Your task to perform on an android device: open a bookmark in the chrome app Image 0: 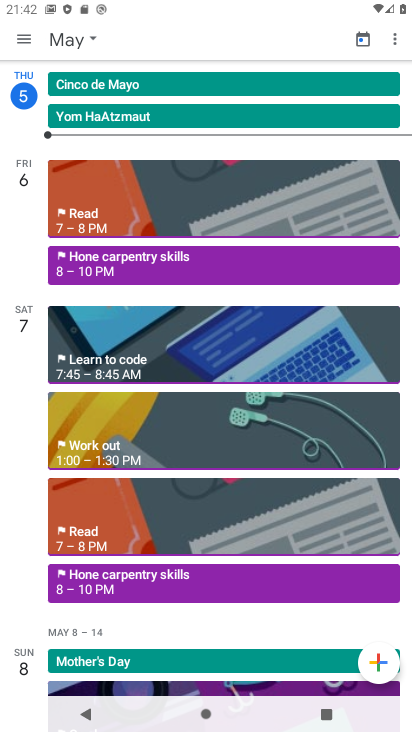
Step 0: press home button
Your task to perform on an android device: open a bookmark in the chrome app Image 1: 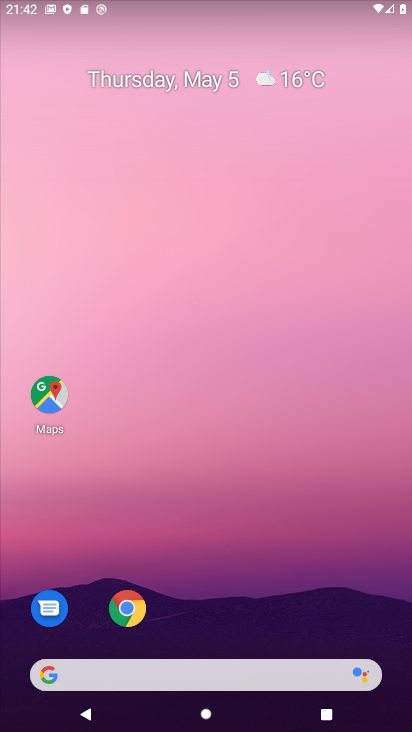
Step 1: drag from (242, 612) to (271, 76)
Your task to perform on an android device: open a bookmark in the chrome app Image 2: 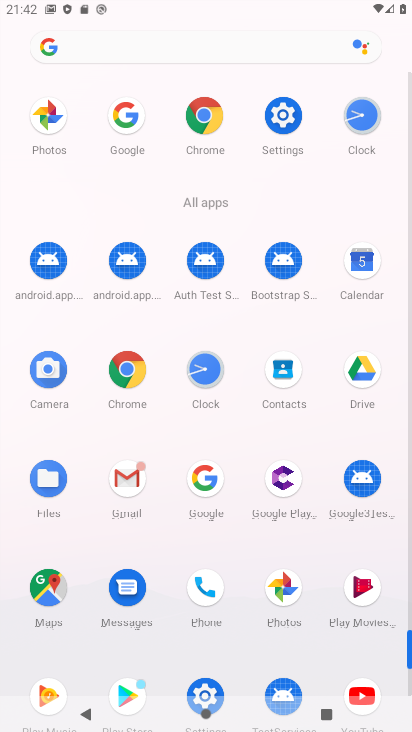
Step 2: click (202, 118)
Your task to perform on an android device: open a bookmark in the chrome app Image 3: 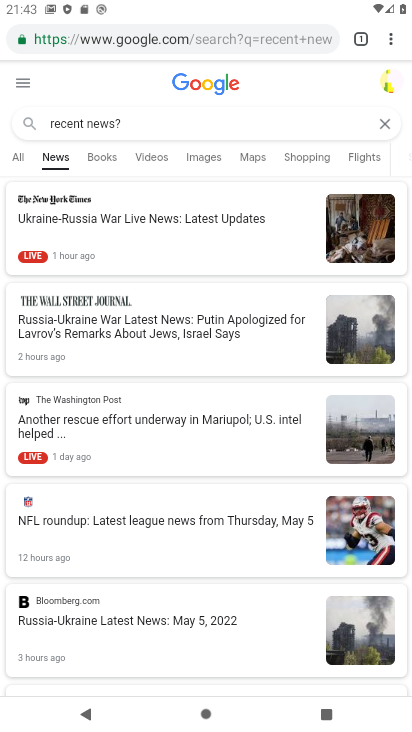
Step 3: task complete